Your task to perform on an android device: check android version Image 0: 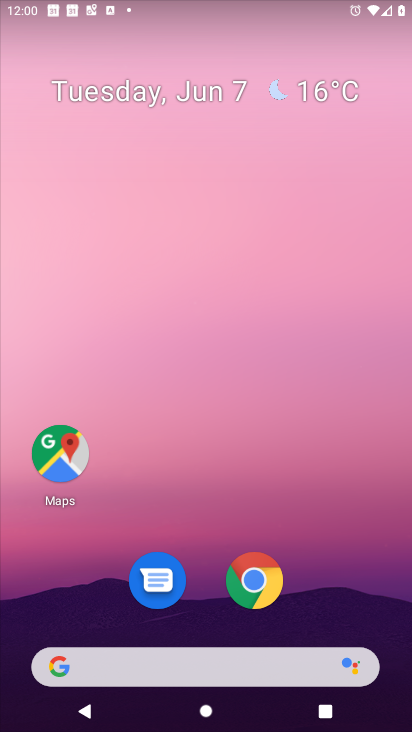
Step 0: drag from (376, 523) to (411, 87)
Your task to perform on an android device: check android version Image 1: 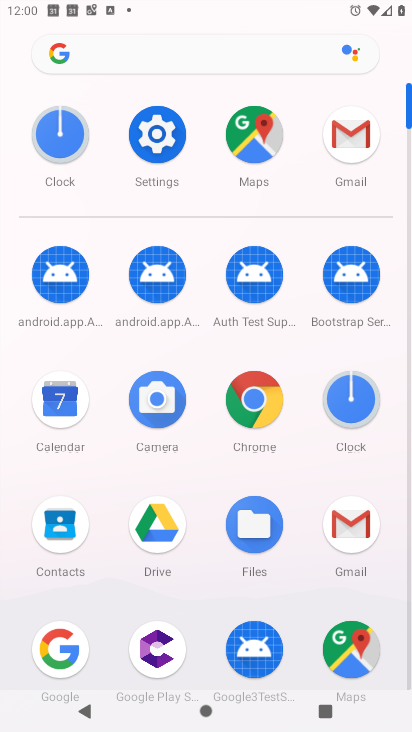
Step 1: click (146, 143)
Your task to perform on an android device: check android version Image 2: 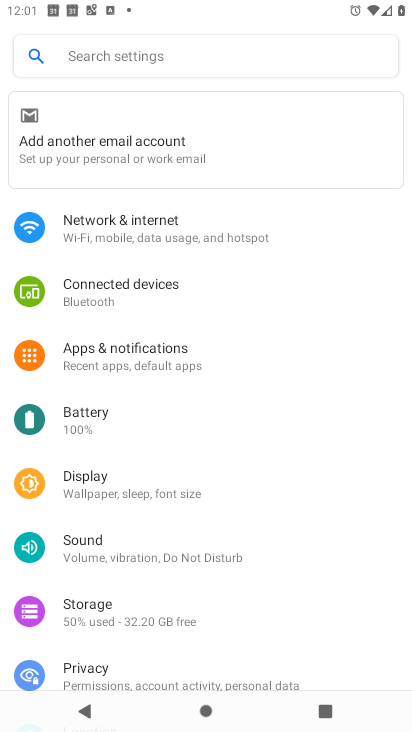
Step 2: drag from (153, 558) to (220, 106)
Your task to perform on an android device: check android version Image 3: 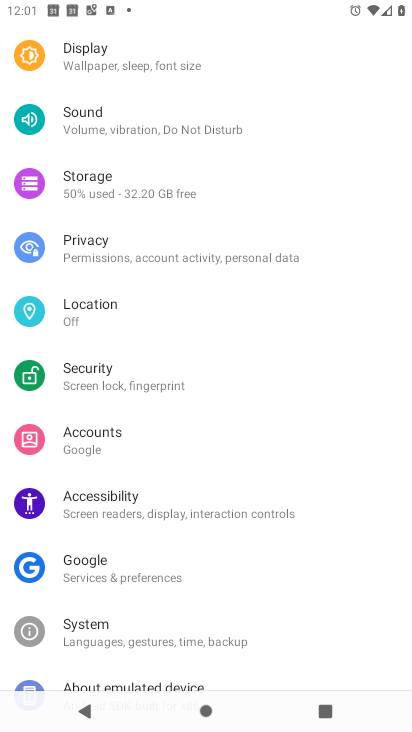
Step 3: drag from (161, 642) to (177, 15)
Your task to perform on an android device: check android version Image 4: 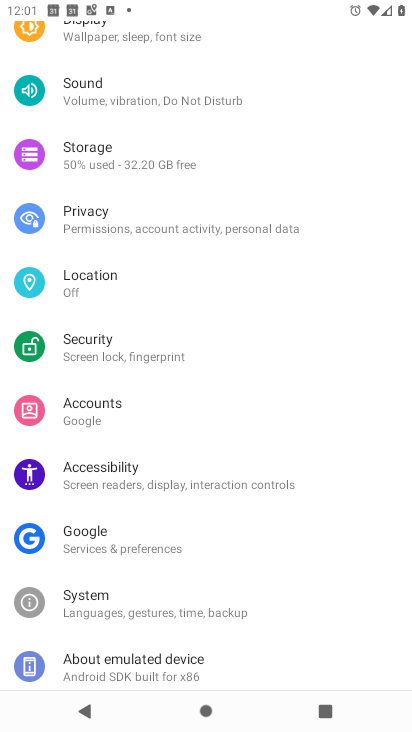
Step 4: drag from (155, 628) to (243, 129)
Your task to perform on an android device: check android version Image 5: 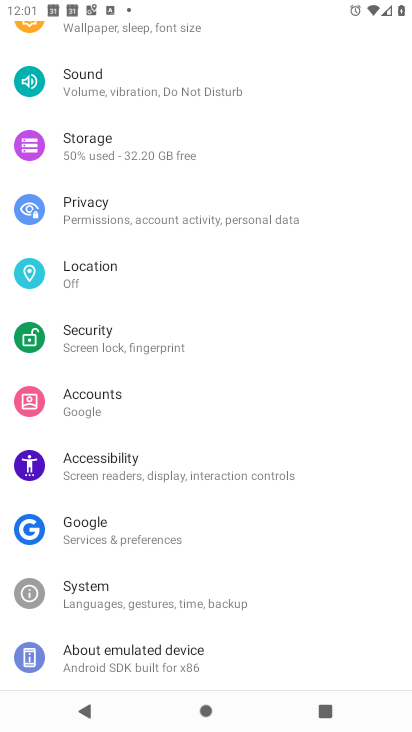
Step 5: click (122, 658)
Your task to perform on an android device: check android version Image 6: 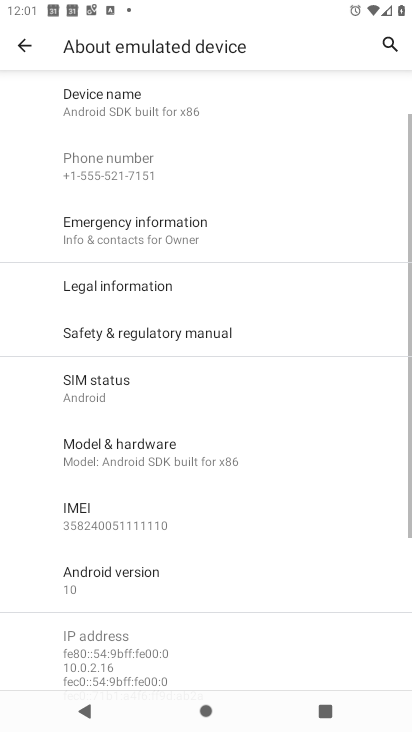
Step 6: task complete